Your task to perform on an android device: turn off priority inbox in the gmail app Image 0: 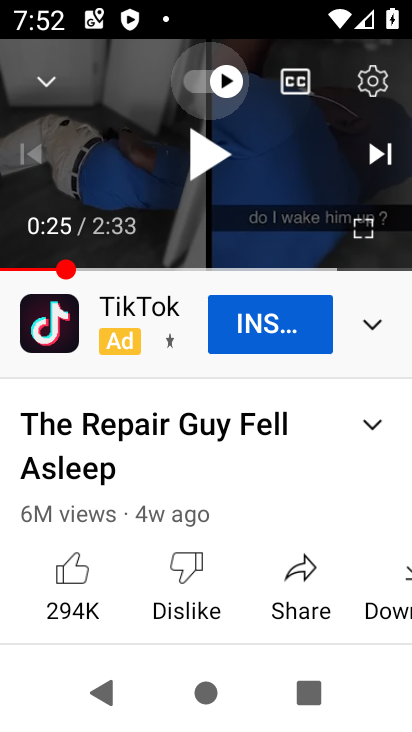
Step 0: press back button
Your task to perform on an android device: turn off priority inbox in the gmail app Image 1: 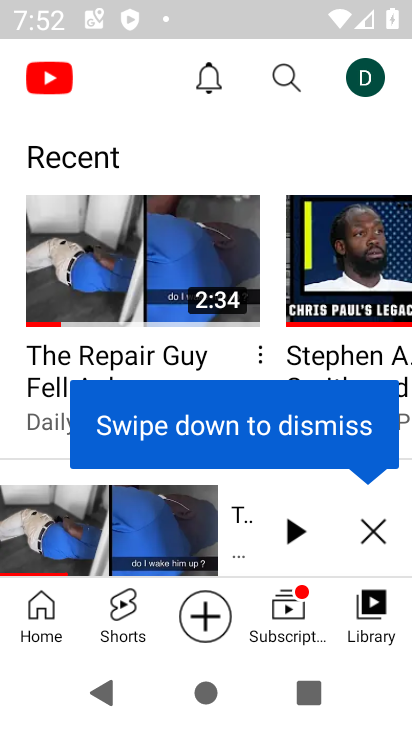
Step 1: press home button
Your task to perform on an android device: turn off priority inbox in the gmail app Image 2: 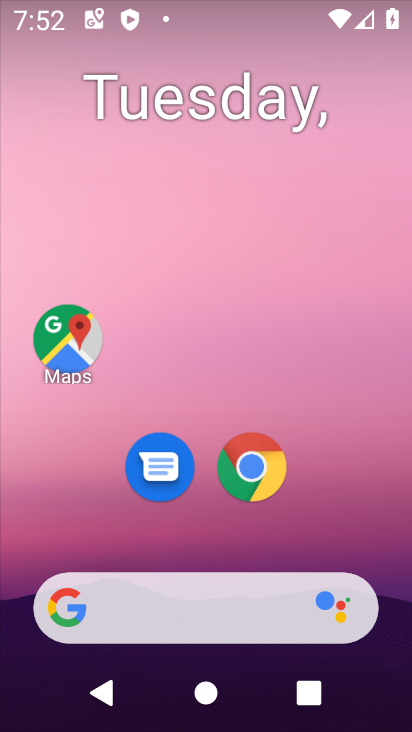
Step 2: drag from (361, 549) to (289, 181)
Your task to perform on an android device: turn off priority inbox in the gmail app Image 3: 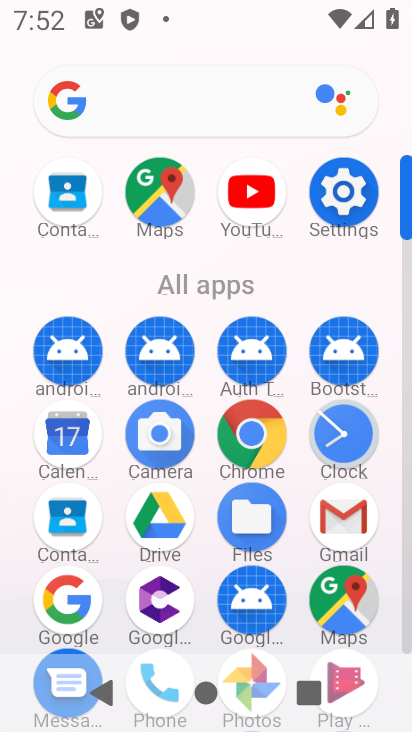
Step 3: click (364, 523)
Your task to perform on an android device: turn off priority inbox in the gmail app Image 4: 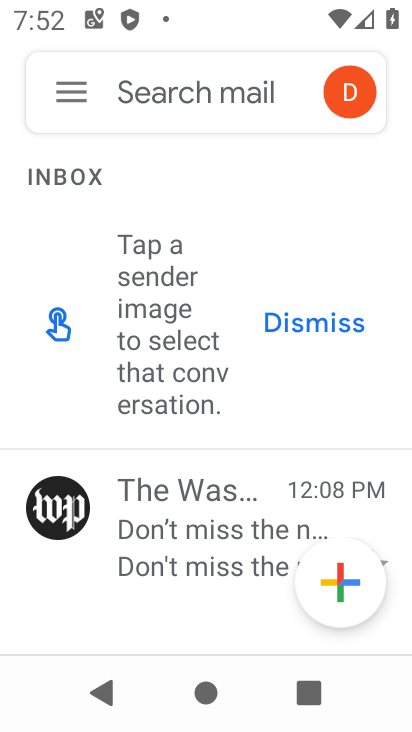
Step 4: click (81, 95)
Your task to perform on an android device: turn off priority inbox in the gmail app Image 5: 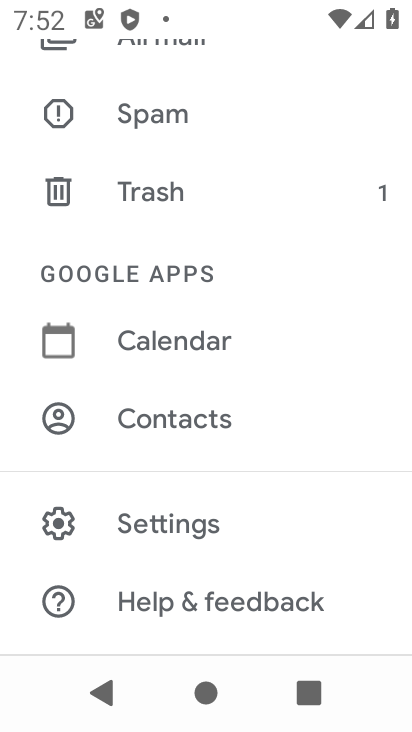
Step 5: click (263, 529)
Your task to perform on an android device: turn off priority inbox in the gmail app Image 6: 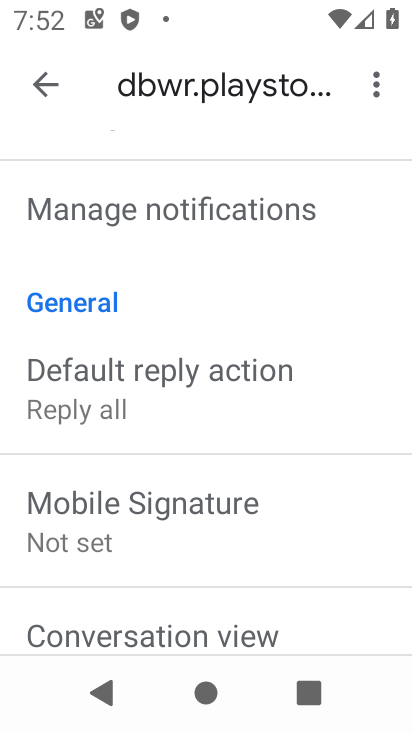
Step 6: drag from (240, 265) to (209, 660)
Your task to perform on an android device: turn off priority inbox in the gmail app Image 7: 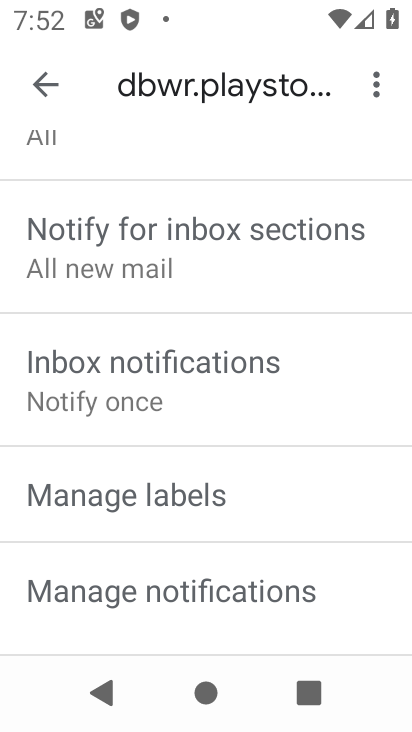
Step 7: drag from (260, 293) to (224, 657)
Your task to perform on an android device: turn off priority inbox in the gmail app Image 8: 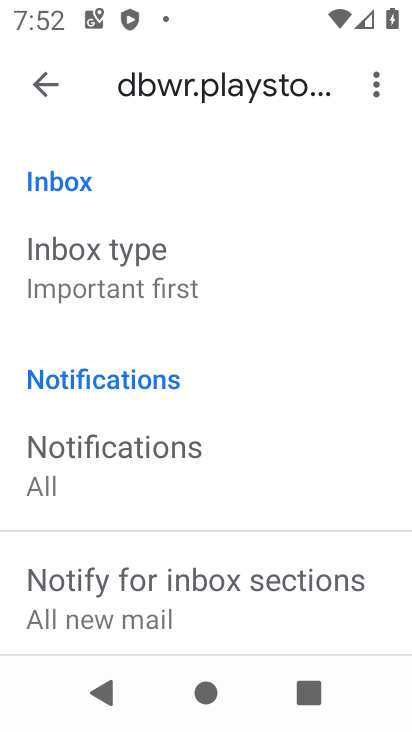
Step 8: drag from (262, 201) to (227, 594)
Your task to perform on an android device: turn off priority inbox in the gmail app Image 9: 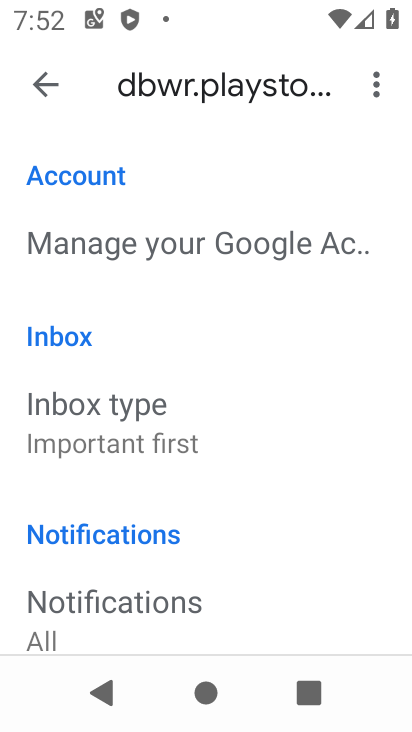
Step 9: click (202, 418)
Your task to perform on an android device: turn off priority inbox in the gmail app Image 10: 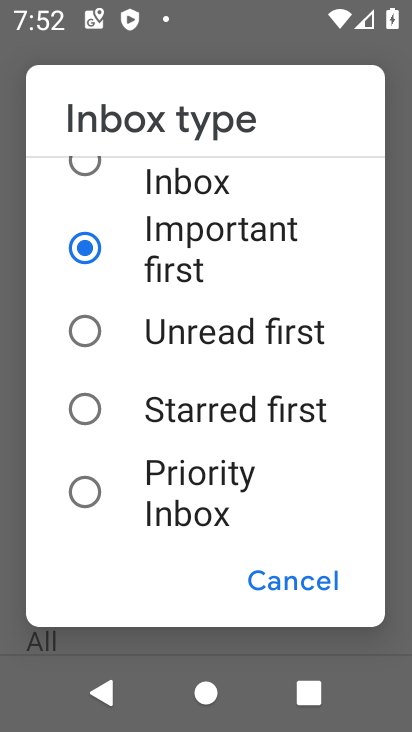
Step 10: task complete